Your task to perform on an android device: turn on the 24-hour format for clock Image 0: 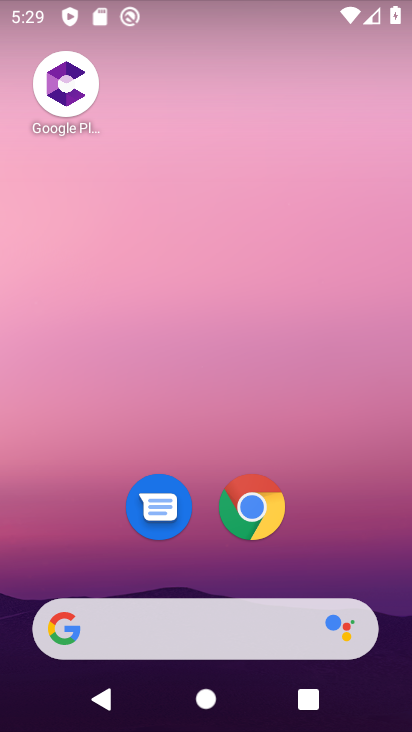
Step 0: drag from (203, 585) to (138, 203)
Your task to perform on an android device: turn on the 24-hour format for clock Image 1: 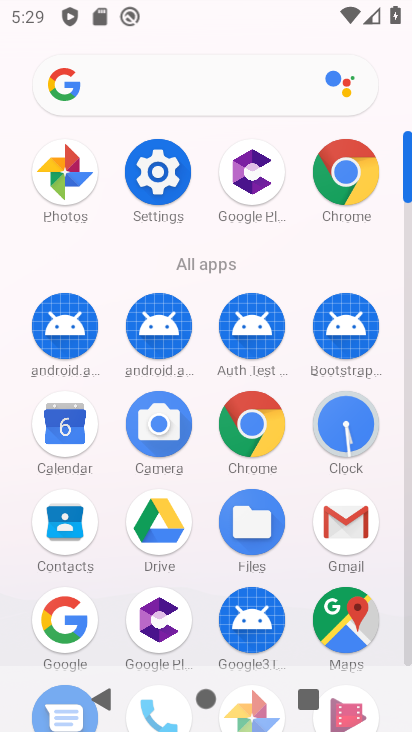
Step 1: click (341, 455)
Your task to perform on an android device: turn on the 24-hour format for clock Image 2: 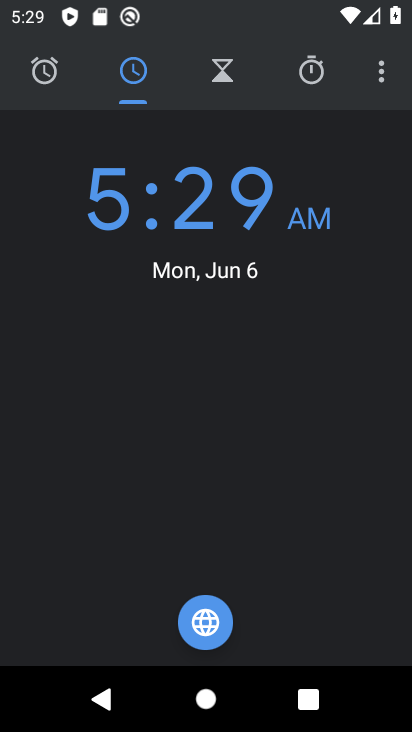
Step 2: click (371, 93)
Your task to perform on an android device: turn on the 24-hour format for clock Image 3: 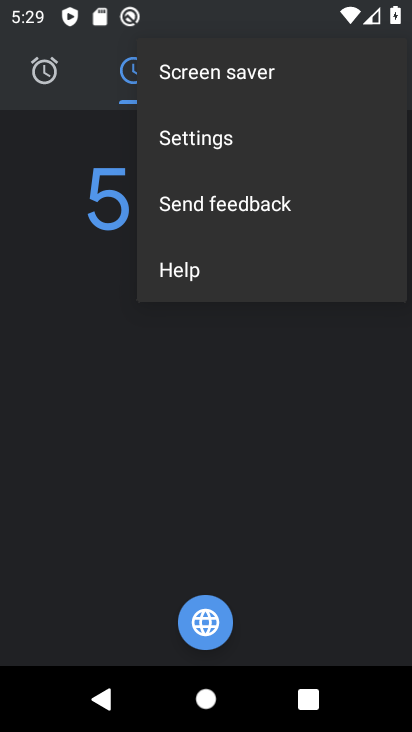
Step 3: click (178, 163)
Your task to perform on an android device: turn on the 24-hour format for clock Image 4: 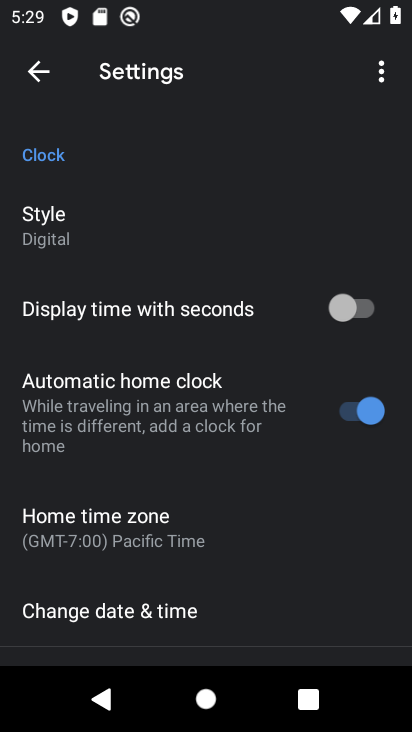
Step 4: click (120, 628)
Your task to perform on an android device: turn on the 24-hour format for clock Image 5: 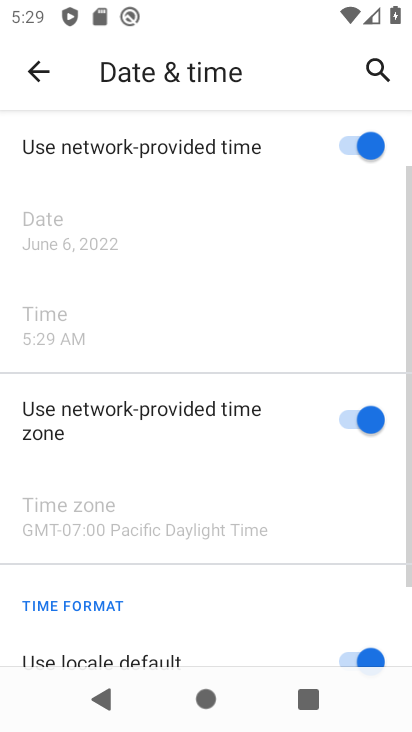
Step 5: drag from (143, 622) to (193, 250)
Your task to perform on an android device: turn on the 24-hour format for clock Image 6: 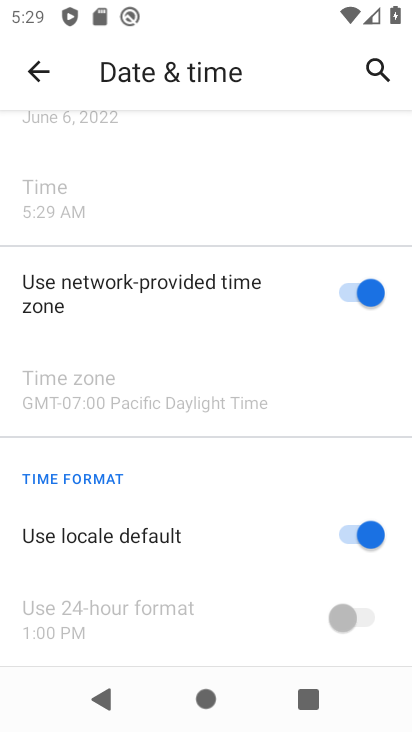
Step 6: click (343, 549)
Your task to perform on an android device: turn on the 24-hour format for clock Image 7: 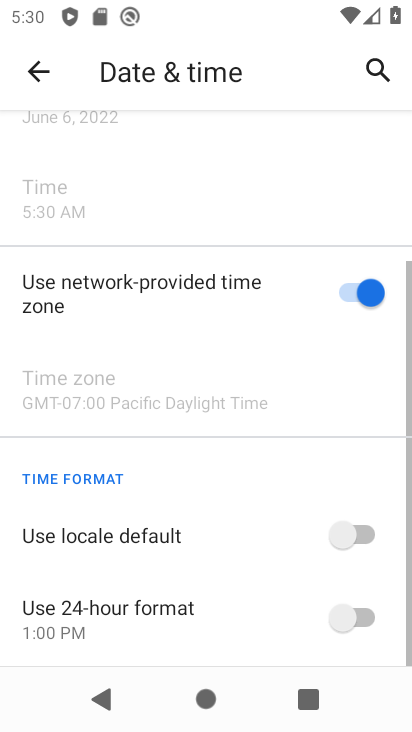
Step 7: click (362, 623)
Your task to perform on an android device: turn on the 24-hour format for clock Image 8: 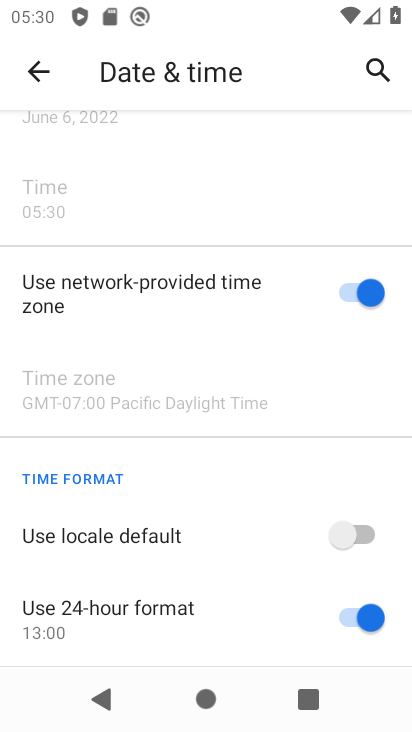
Step 8: task complete